Your task to perform on an android device: delete browsing data in the chrome app Image 0: 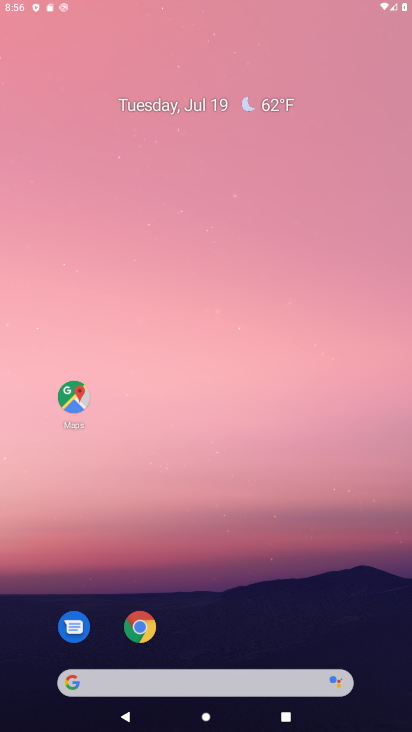
Step 0: press home button
Your task to perform on an android device: delete browsing data in the chrome app Image 1: 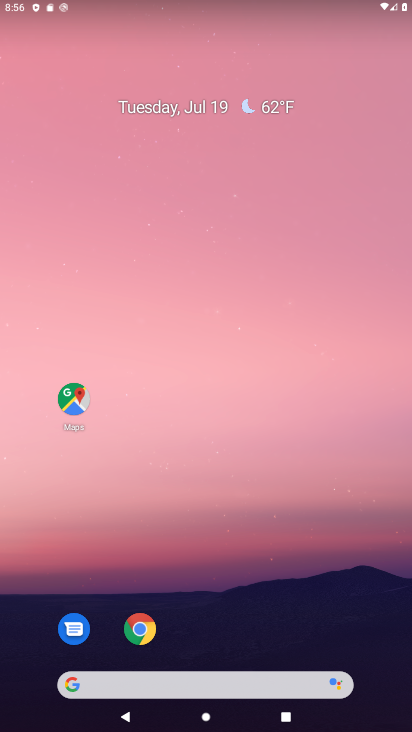
Step 1: click (137, 626)
Your task to perform on an android device: delete browsing data in the chrome app Image 2: 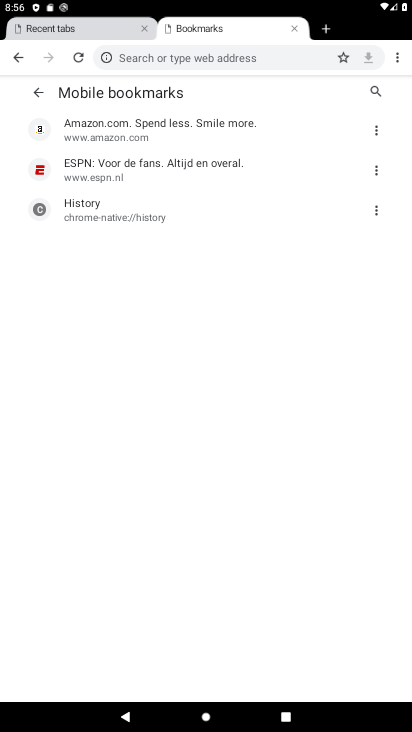
Step 2: click (392, 52)
Your task to perform on an android device: delete browsing data in the chrome app Image 3: 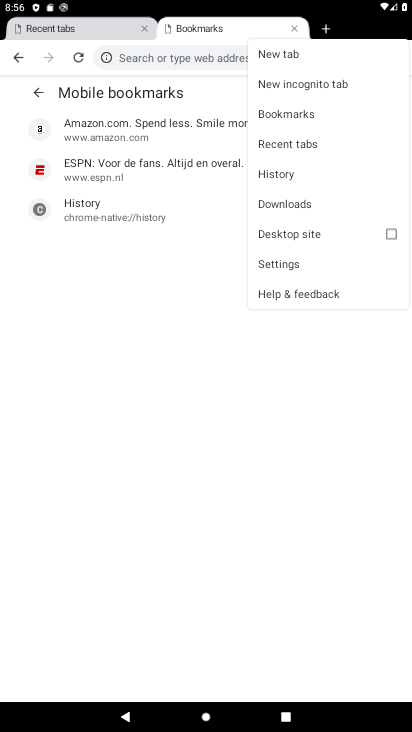
Step 3: click (298, 171)
Your task to perform on an android device: delete browsing data in the chrome app Image 4: 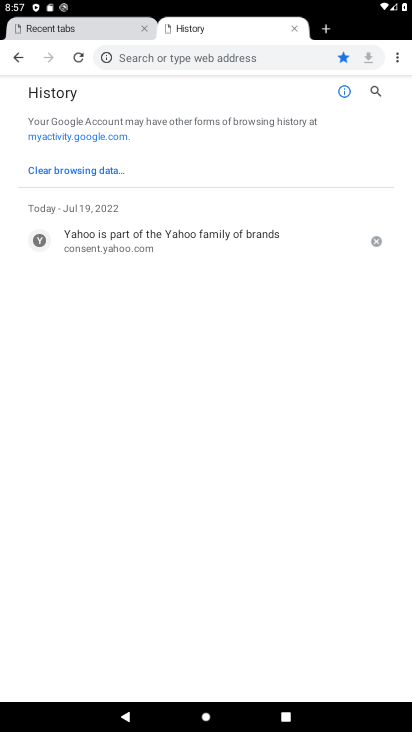
Step 4: click (82, 168)
Your task to perform on an android device: delete browsing data in the chrome app Image 5: 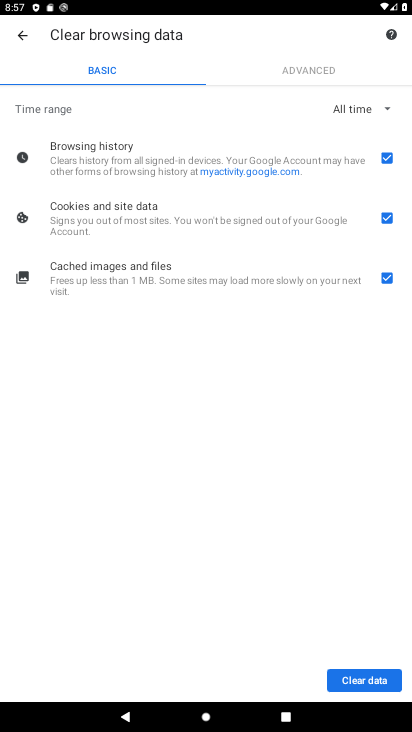
Step 5: click (373, 677)
Your task to perform on an android device: delete browsing data in the chrome app Image 6: 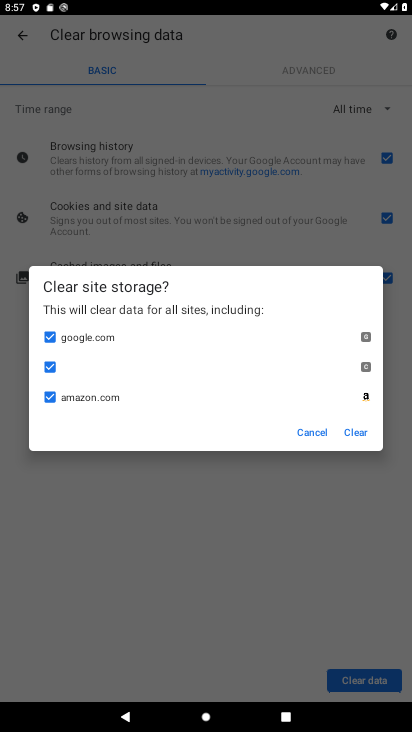
Step 6: click (359, 431)
Your task to perform on an android device: delete browsing data in the chrome app Image 7: 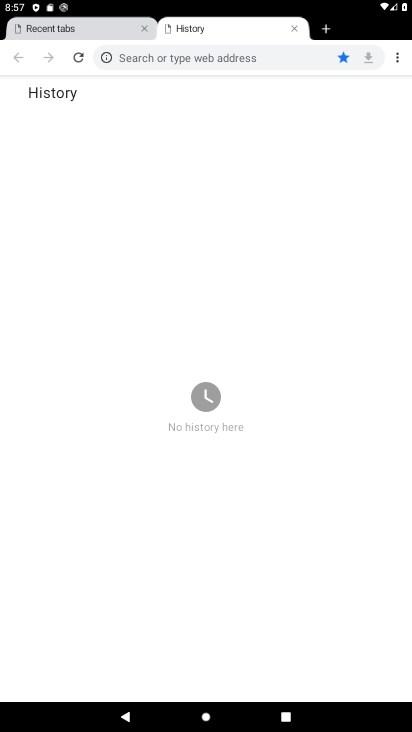
Step 7: task complete